Your task to perform on an android device: change text size in settings app Image 0: 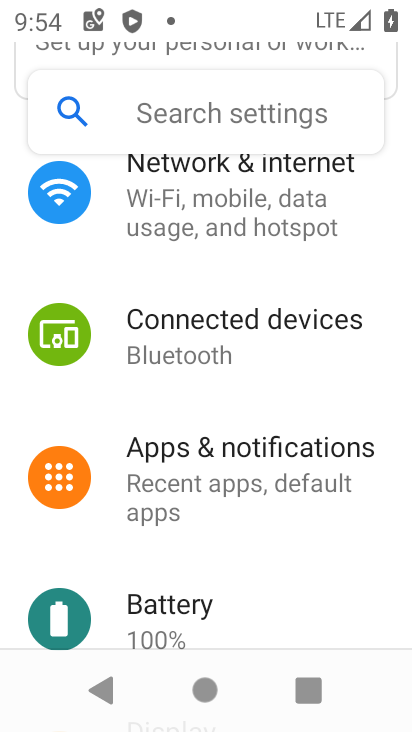
Step 0: drag from (262, 631) to (241, 317)
Your task to perform on an android device: change text size in settings app Image 1: 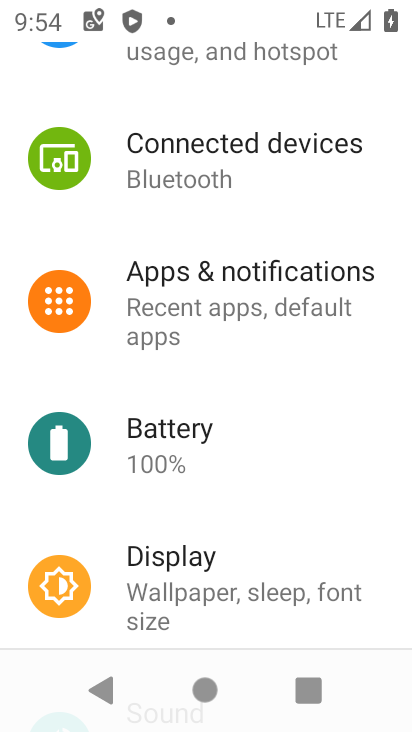
Step 1: drag from (219, 619) to (208, 319)
Your task to perform on an android device: change text size in settings app Image 2: 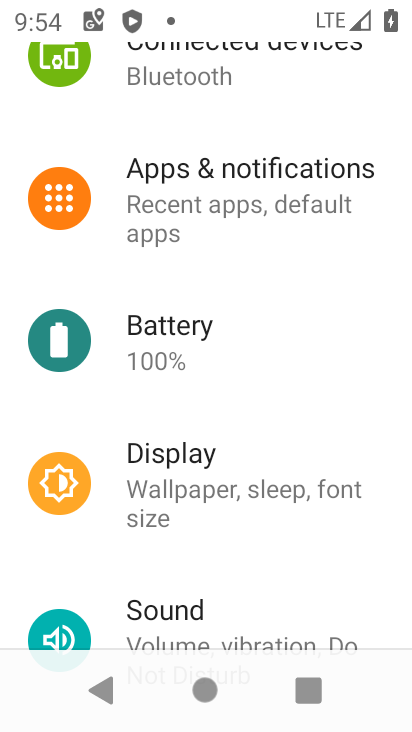
Step 2: drag from (245, 635) to (273, 316)
Your task to perform on an android device: change text size in settings app Image 3: 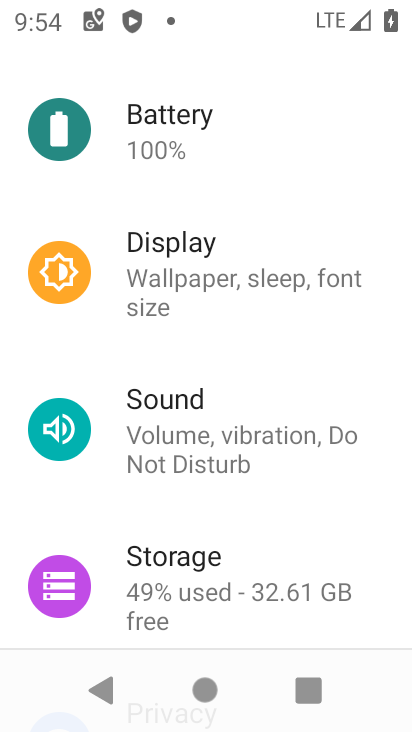
Step 3: drag from (245, 611) to (288, 301)
Your task to perform on an android device: change text size in settings app Image 4: 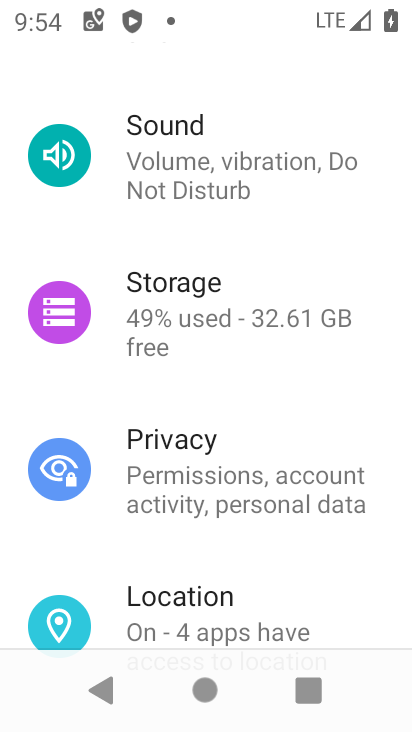
Step 4: drag from (231, 628) to (258, 368)
Your task to perform on an android device: change text size in settings app Image 5: 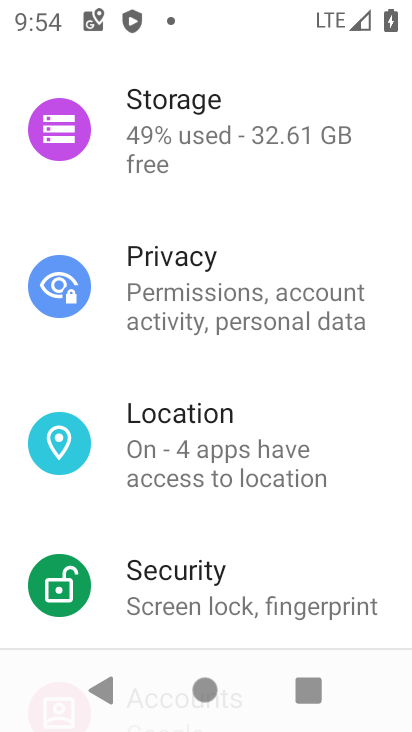
Step 5: drag from (261, 593) to (277, 300)
Your task to perform on an android device: change text size in settings app Image 6: 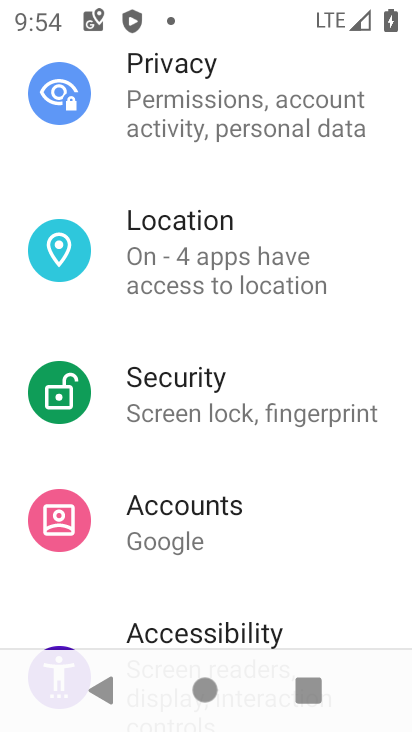
Step 6: drag from (208, 574) to (211, 320)
Your task to perform on an android device: change text size in settings app Image 7: 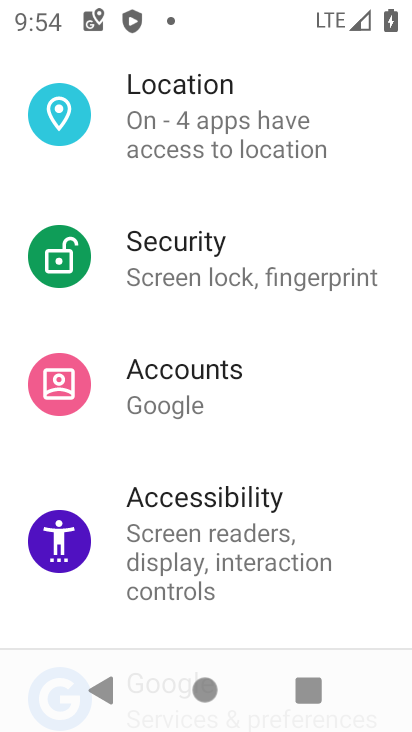
Step 7: click (174, 547)
Your task to perform on an android device: change text size in settings app Image 8: 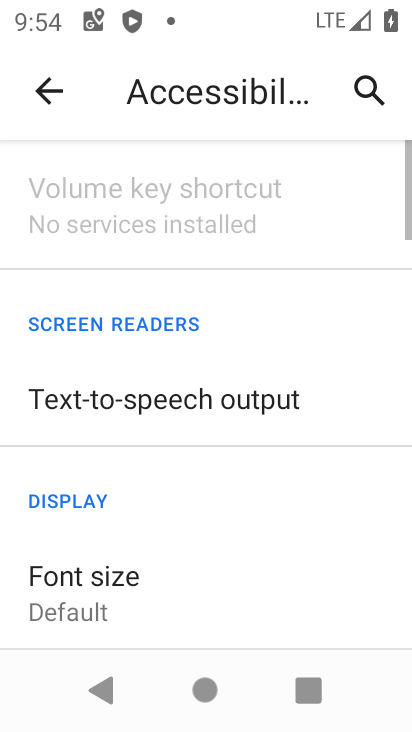
Step 8: click (79, 606)
Your task to perform on an android device: change text size in settings app Image 9: 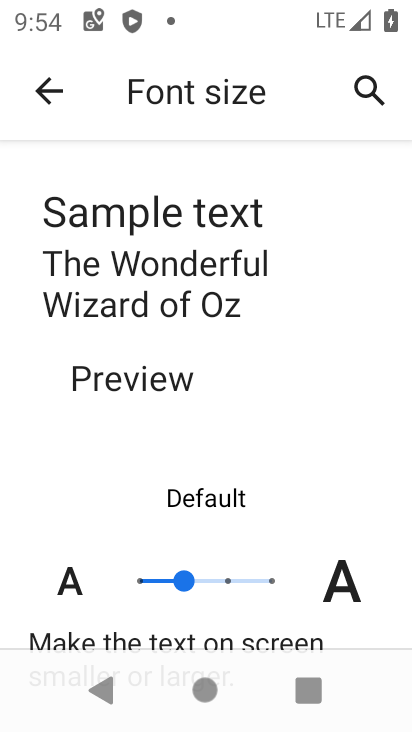
Step 9: click (221, 577)
Your task to perform on an android device: change text size in settings app Image 10: 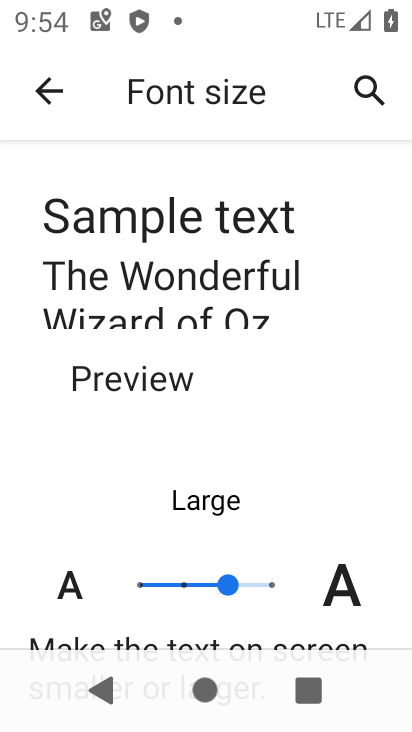
Step 10: task complete